Your task to perform on an android device: check battery use Image 0: 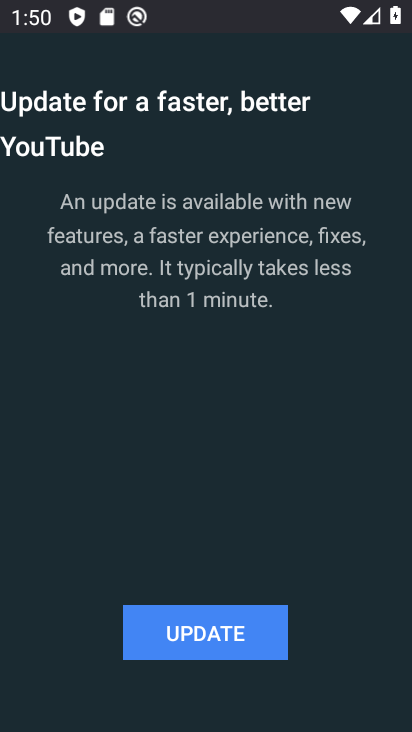
Step 0: press back button
Your task to perform on an android device: check battery use Image 1: 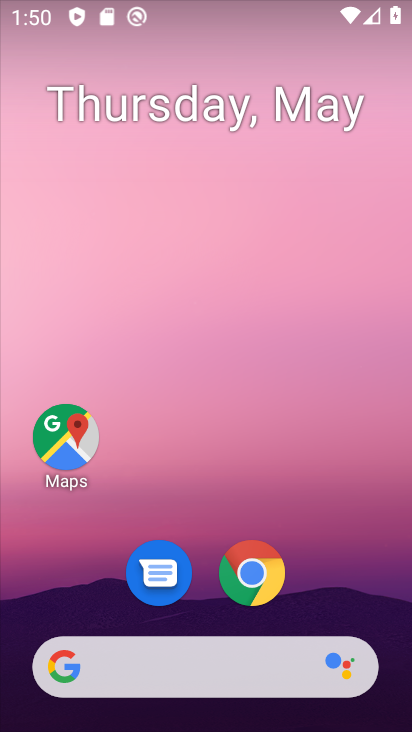
Step 1: drag from (348, 577) to (317, 107)
Your task to perform on an android device: check battery use Image 2: 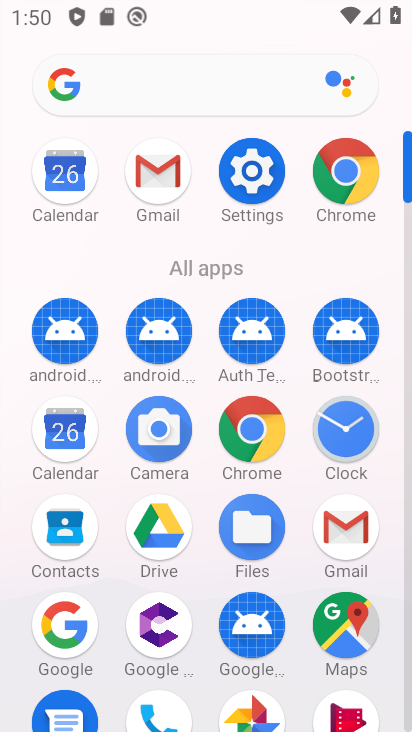
Step 2: click (261, 171)
Your task to perform on an android device: check battery use Image 3: 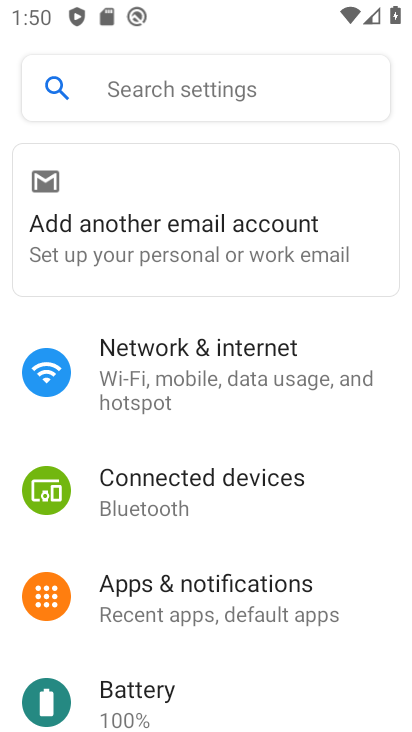
Step 3: click (182, 700)
Your task to perform on an android device: check battery use Image 4: 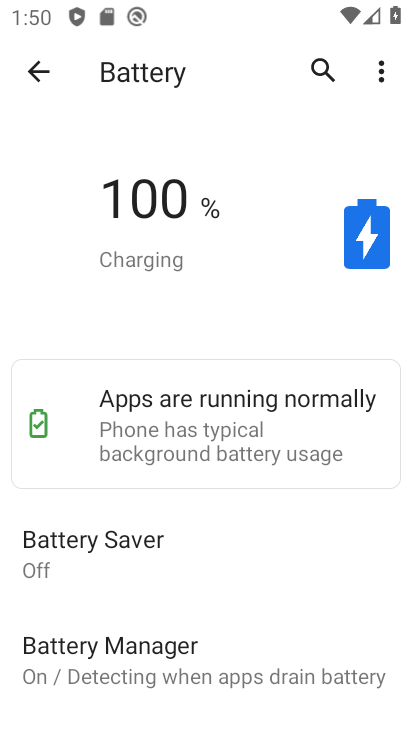
Step 4: click (376, 58)
Your task to perform on an android device: check battery use Image 5: 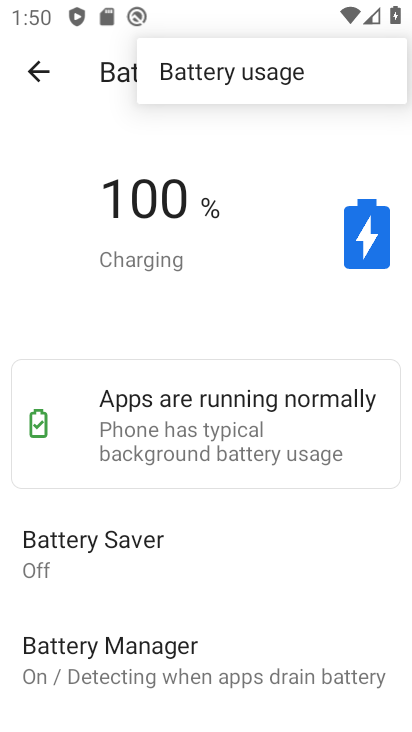
Step 5: click (297, 69)
Your task to perform on an android device: check battery use Image 6: 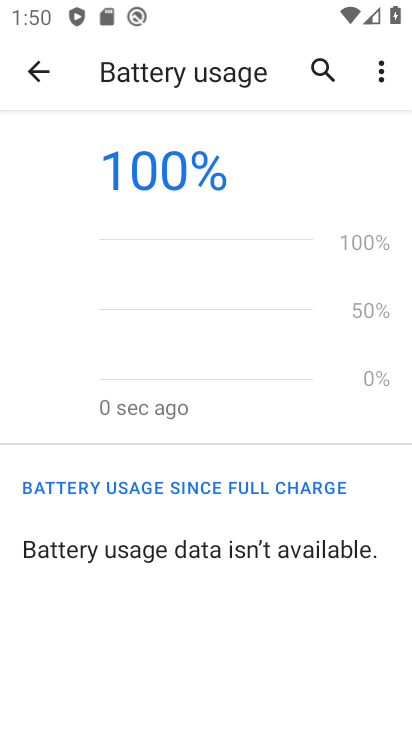
Step 6: task complete